Your task to perform on an android device: Open eBay Image 0: 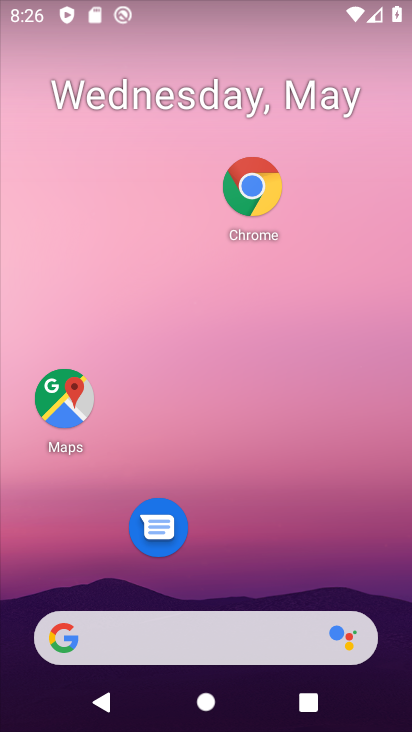
Step 0: drag from (351, 607) to (306, 160)
Your task to perform on an android device: Open eBay Image 1: 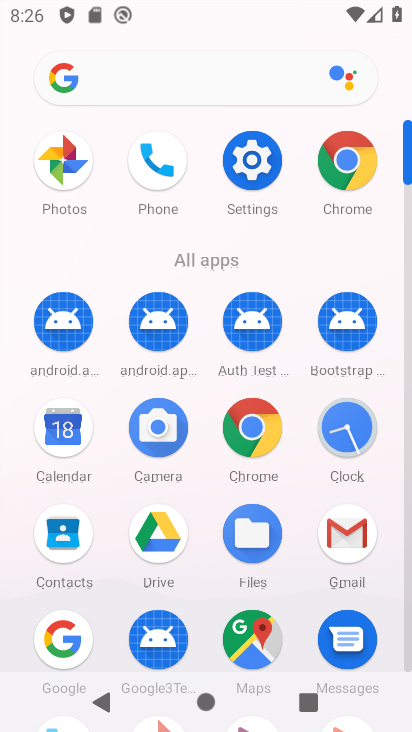
Step 1: click (263, 436)
Your task to perform on an android device: Open eBay Image 2: 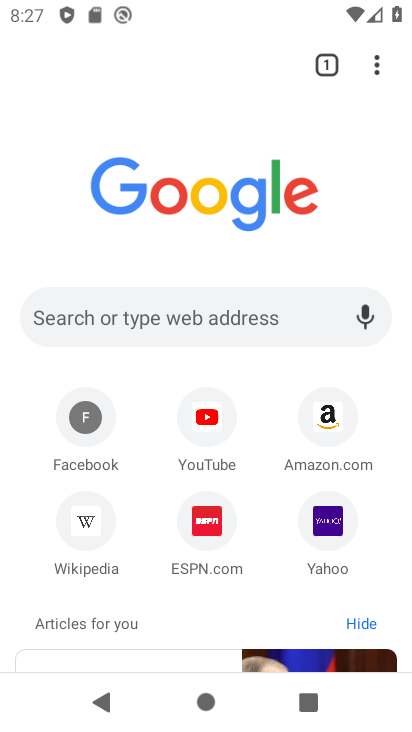
Step 2: click (264, 311)
Your task to perform on an android device: Open eBay Image 3: 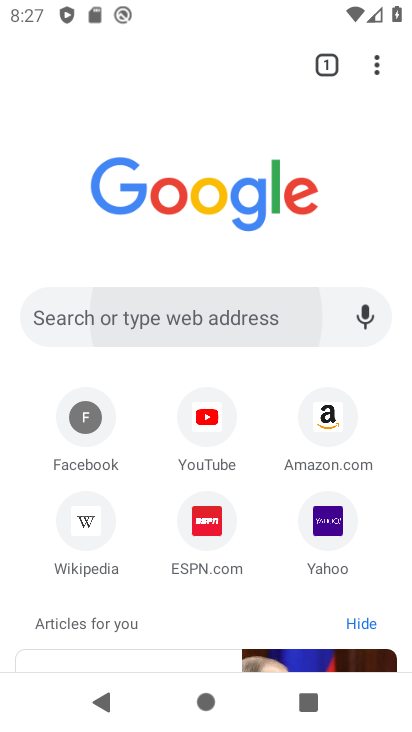
Step 3: click (276, 319)
Your task to perform on an android device: Open eBay Image 4: 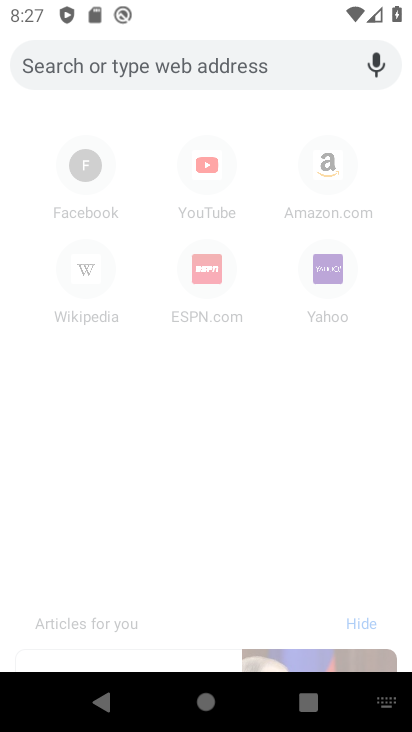
Step 4: type "ebay"
Your task to perform on an android device: Open eBay Image 5: 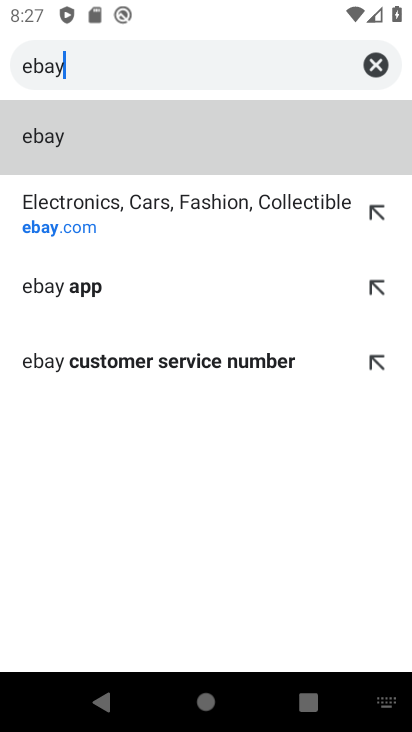
Step 5: click (70, 212)
Your task to perform on an android device: Open eBay Image 6: 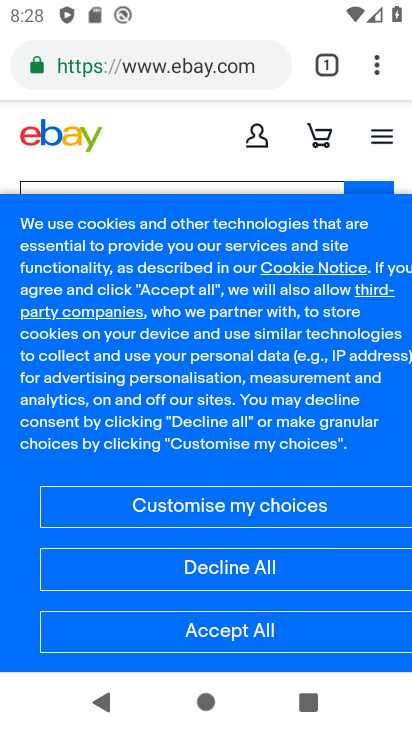
Step 6: task complete